Your task to perform on an android device: remove spam from my inbox in the gmail app Image 0: 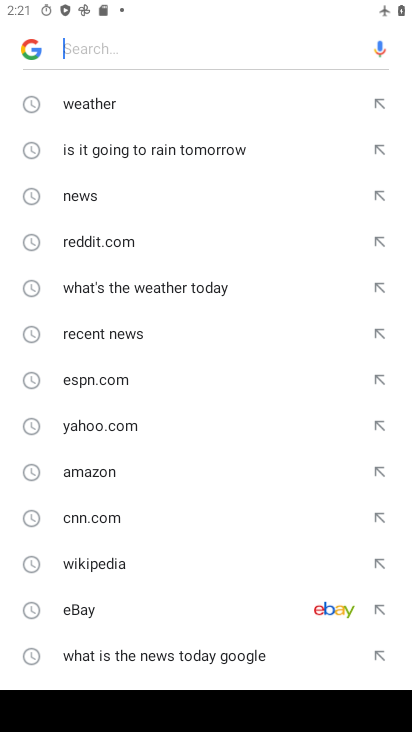
Step 0: press home button
Your task to perform on an android device: remove spam from my inbox in the gmail app Image 1: 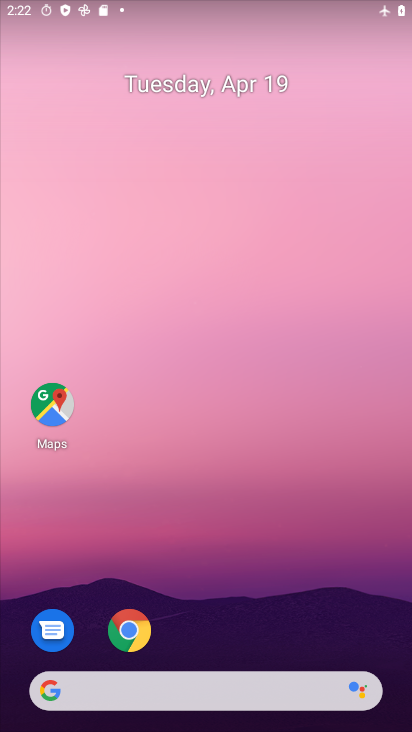
Step 1: drag from (247, 514) to (247, 156)
Your task to perform on an android device: remove spam from my inbox in the gmail app Image 2: 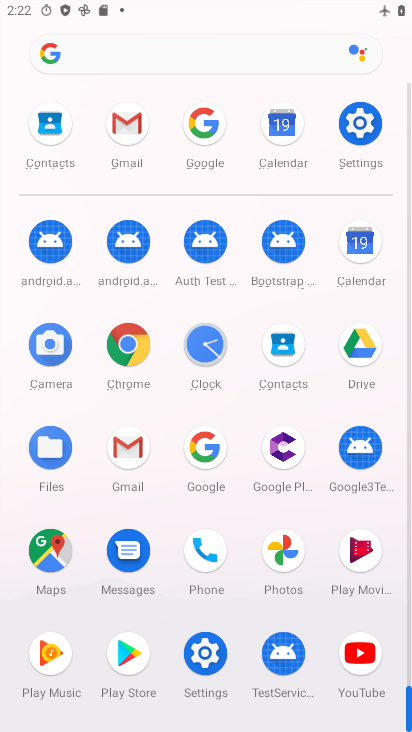
Step 2: click (125, 446)
Your task to perform on an android device: remove spam from my inbox in the gmail app Image 3: 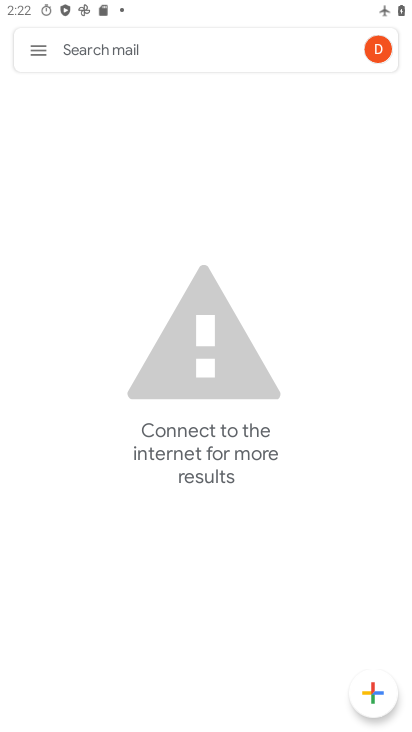
Step 3: click (39, 46)
Your task to perform on an android device: remove spam from my inbox in the gmail app Image 4: 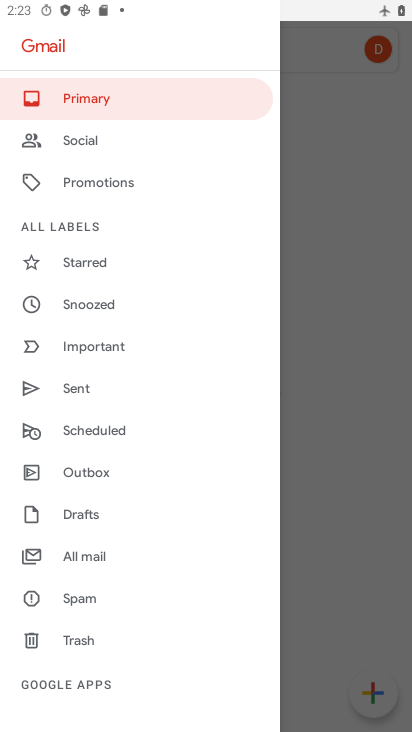
Step 4: click (97, 597)
Your task to perform on an android device: remove spam from my inbox in the gmail app Image 5: 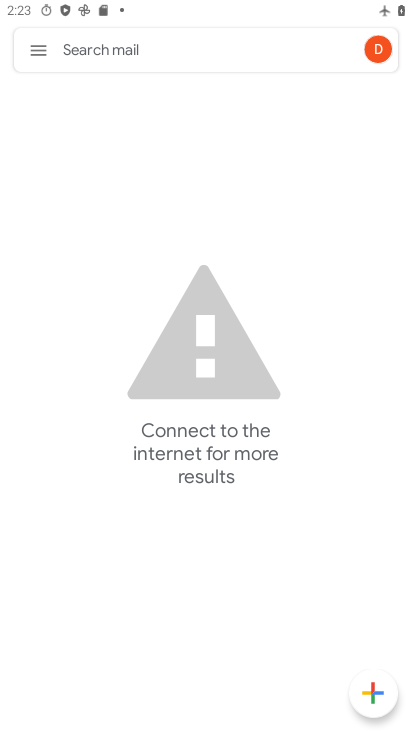
Step 5: task complete